Your task to perform on an android device: Go to privacy settings Image 0: 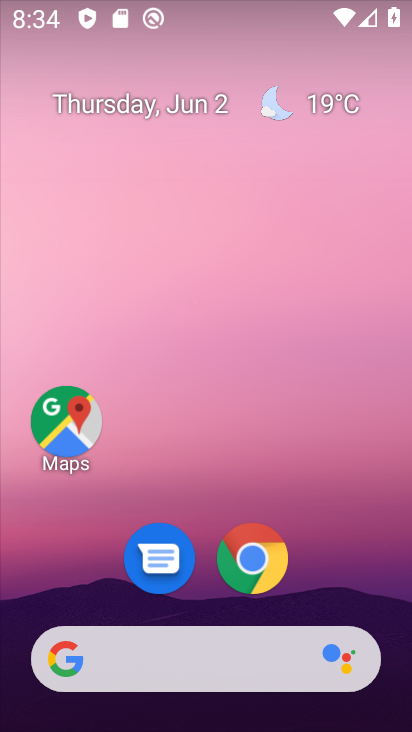
Step 0: drag from (361, 542) to (335, 165)
Your task to perform on an android device: Go to privacy settings Image 1: 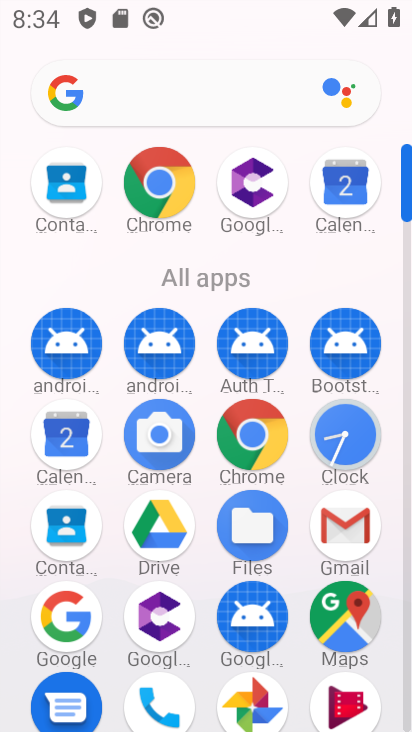
Step 1: drag from (210, 649) to (276, 170)
Your task to perform on an android device: Go to privacy settings Image 2: 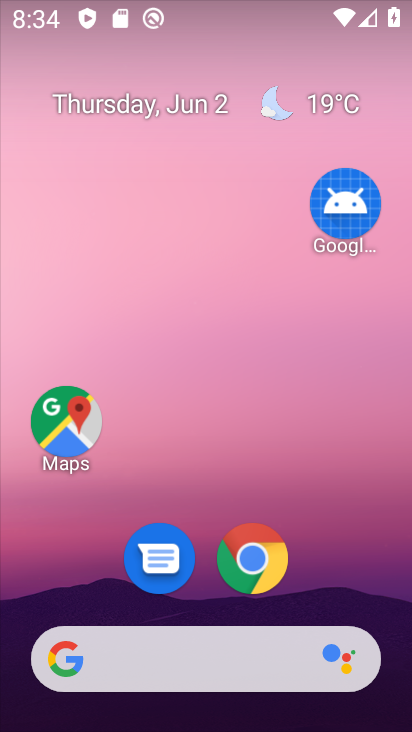
Step 2: drag from (356, 582) to (320, 187)
Your task to perform on an android device: Go to privacy settings Image 3: 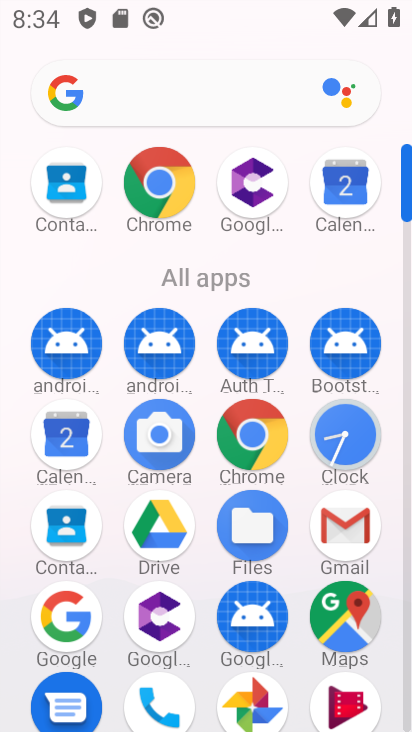
Step 3: drag from (201, 649) to (185, 183)
Your task to perform on an android device: Go to privacy settings Image 4: 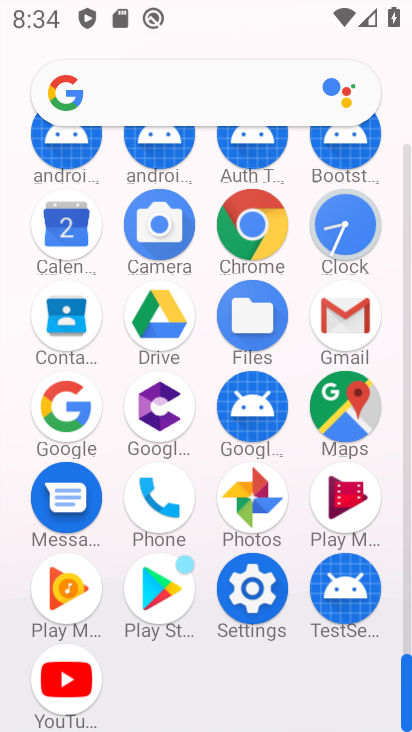
Step 4: click (247, 606)
Your task to perform on an android device: Go to privacy settings Image 5: 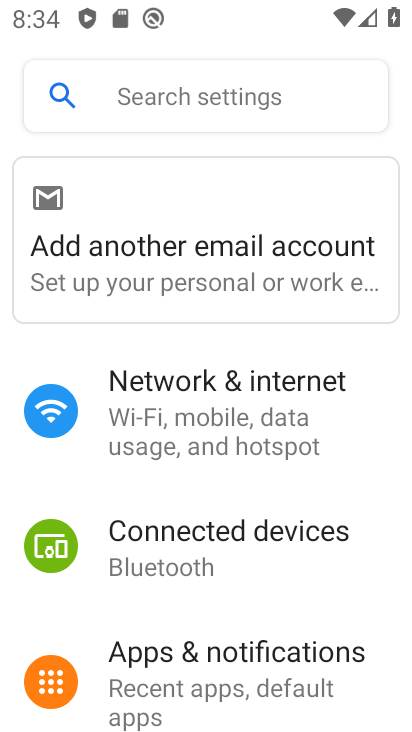
Step 5: drag from (244, 595) to (275, 68)
Your task to perform on an android device: Go to privacy settings Image 6: 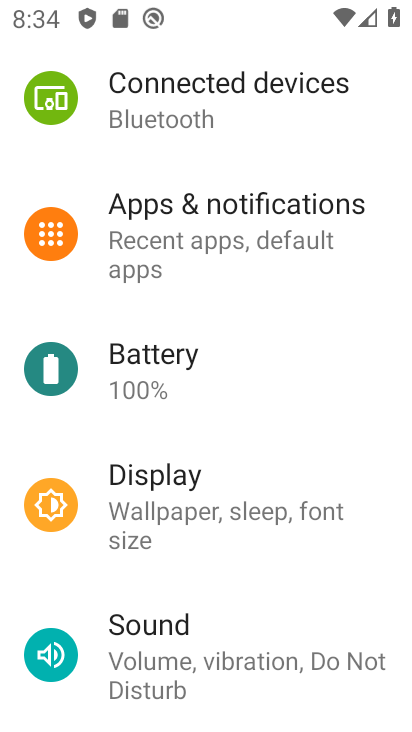
Step 6: drag from (183, 516) to (299, 111)
Your task to perform on an android device: Go to privacy settings Image 7: 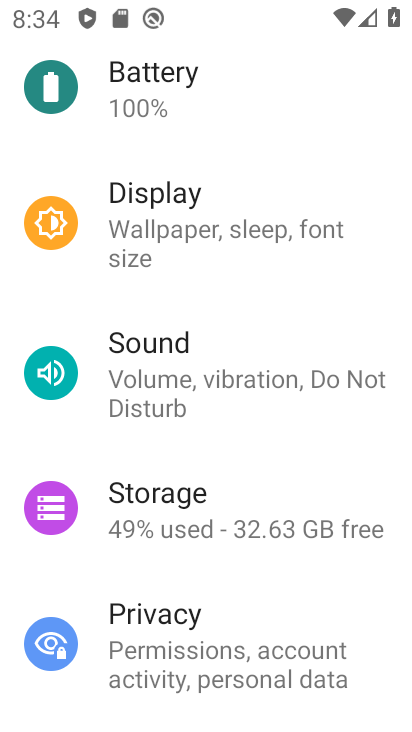
Step 7: click (191, 637)
Your task to perform on an android device: Go to privacy settings Image 8: 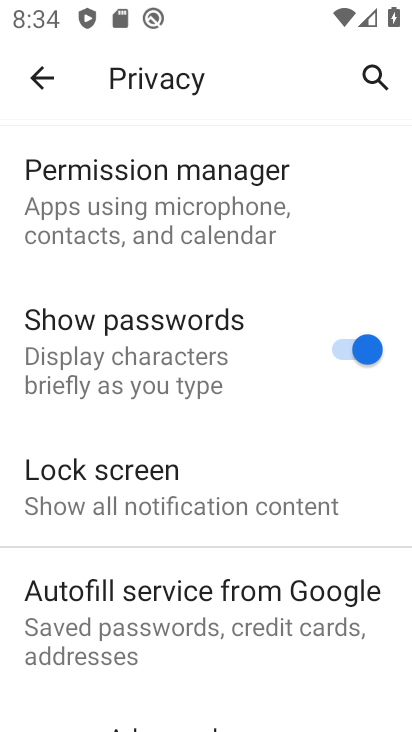
Step 8: task complete